Your task to perform on an android device: View the shopping cart on newegg. Add corsair k70 to the cart on newegg, then select checkout. Image 0: 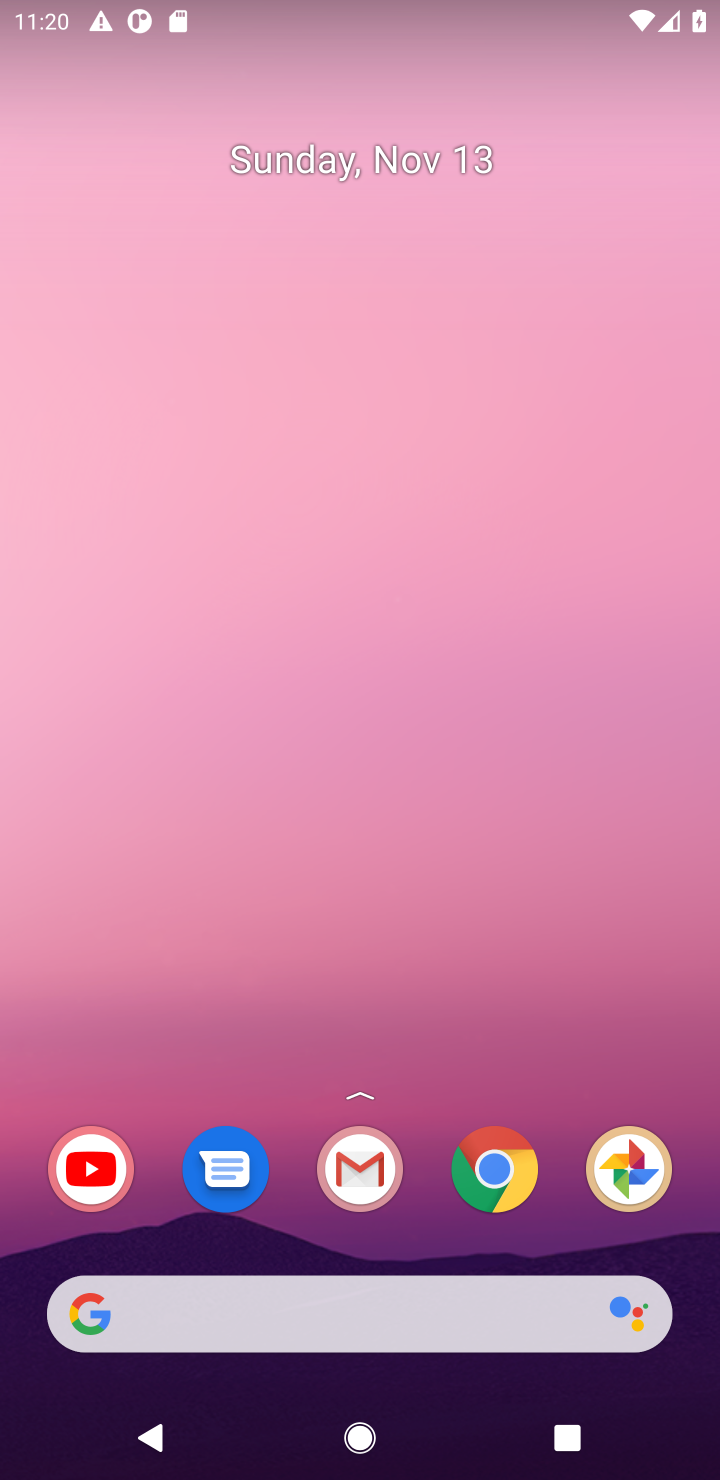
Step 0: drag from (423, 1248) to (305, 146)
Your task to perform on an android device: View the shopping cart on newegg. Add corsair k70 to the cart on newegg, then select checkout. Image 1: 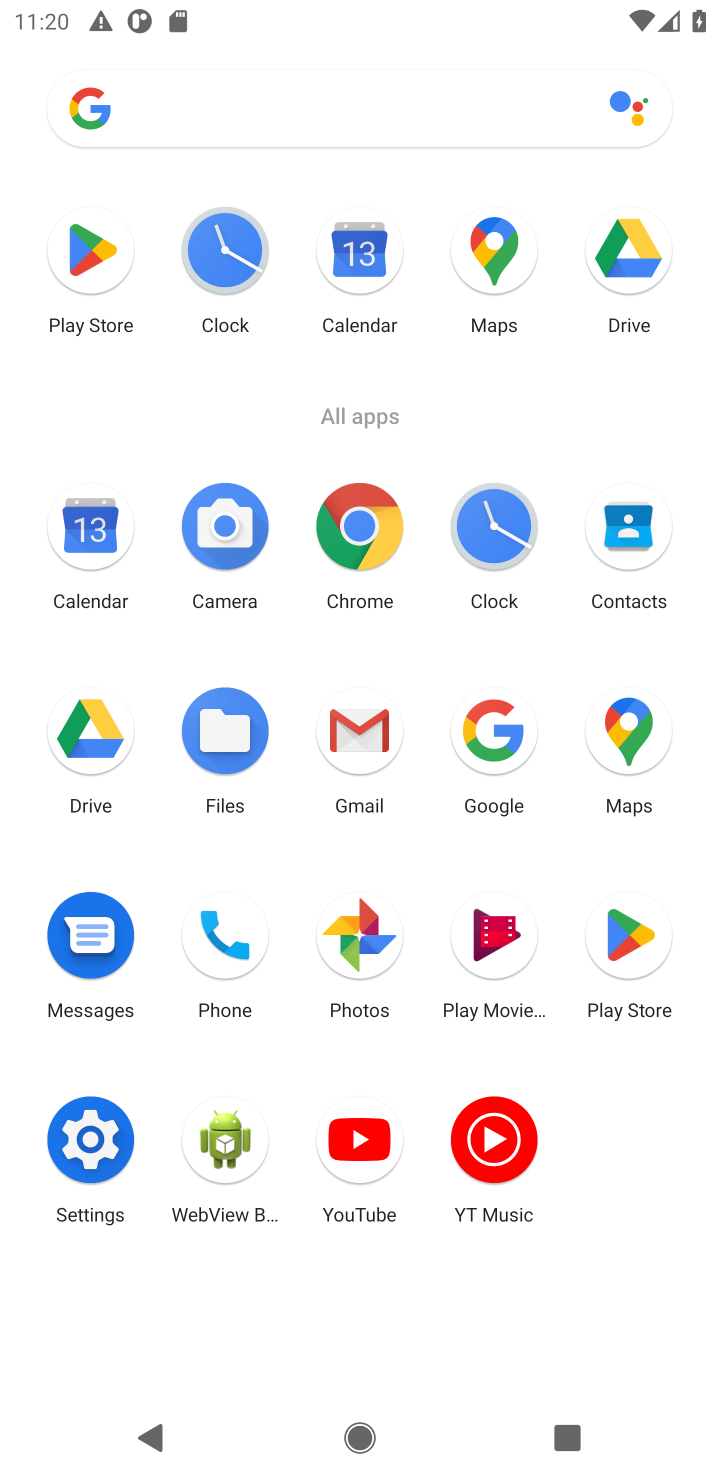
Step 1: click (367, 519)
Your task to perform on an android device: View the shopping cart on newegg. Add corsair k70 to the cart on newegg, then select checkout. Image 2: 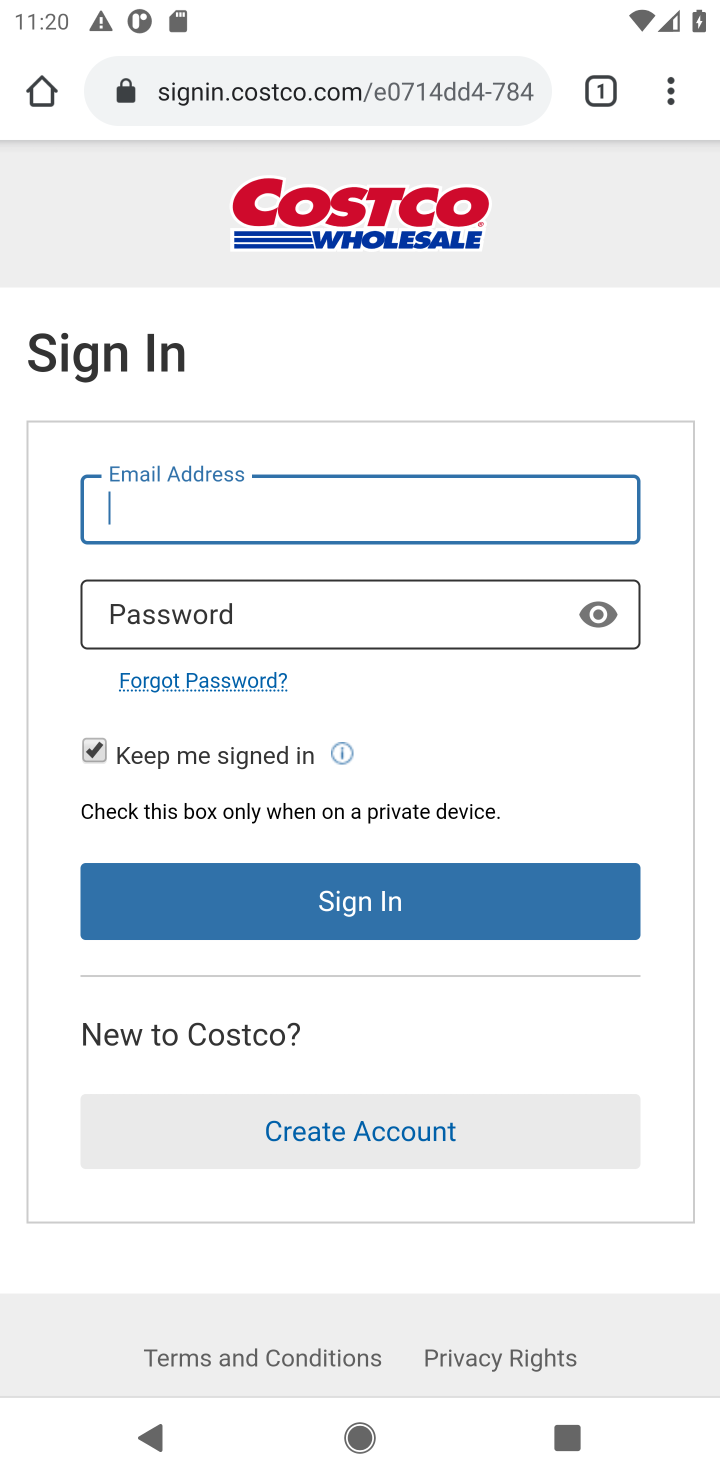
Step 2: click (386, 69)
Your task to perform on an android device: View the shopping cart on newegg. Add corsair k70 to the cart on newegg, then select checkout. Image 3: 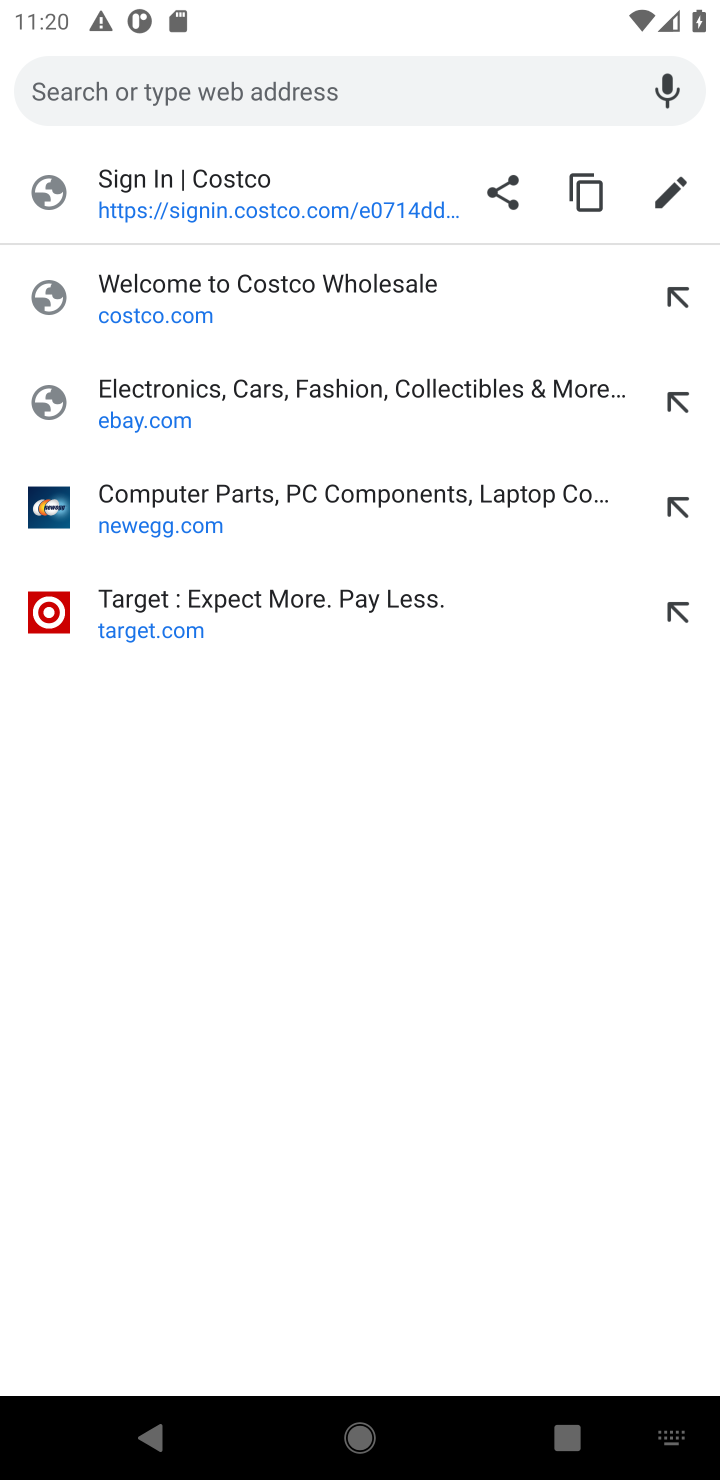
Step 3: type "newegg.com"
Your task to perform on an android device: View the shopping cart on newegg. Add corsair k70 to the cart on newegg, then select checkout. Image 4: 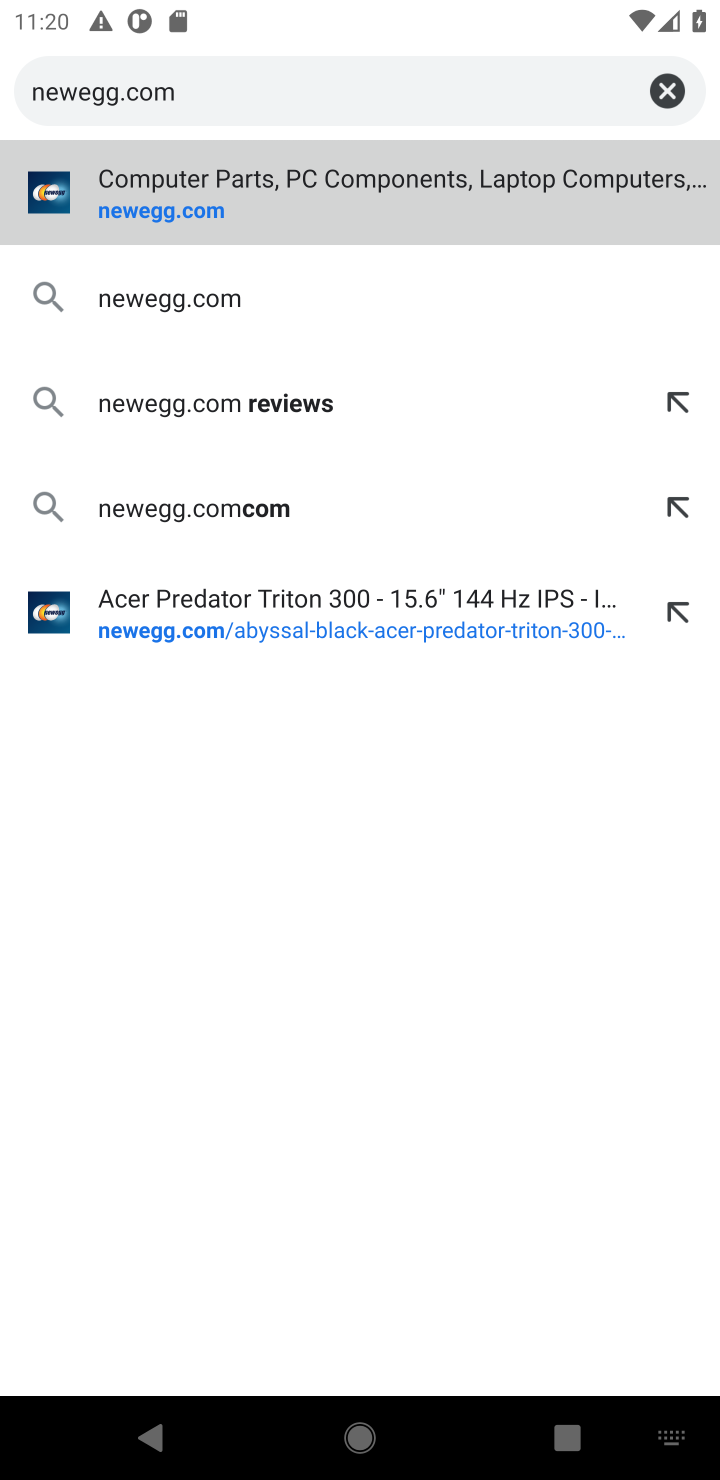
Step 4: press enter
Your task to perform on an android device: View the shopping cart on newegg. Add corsair k70 to the cart on newegg, then select checkout. Image 5: 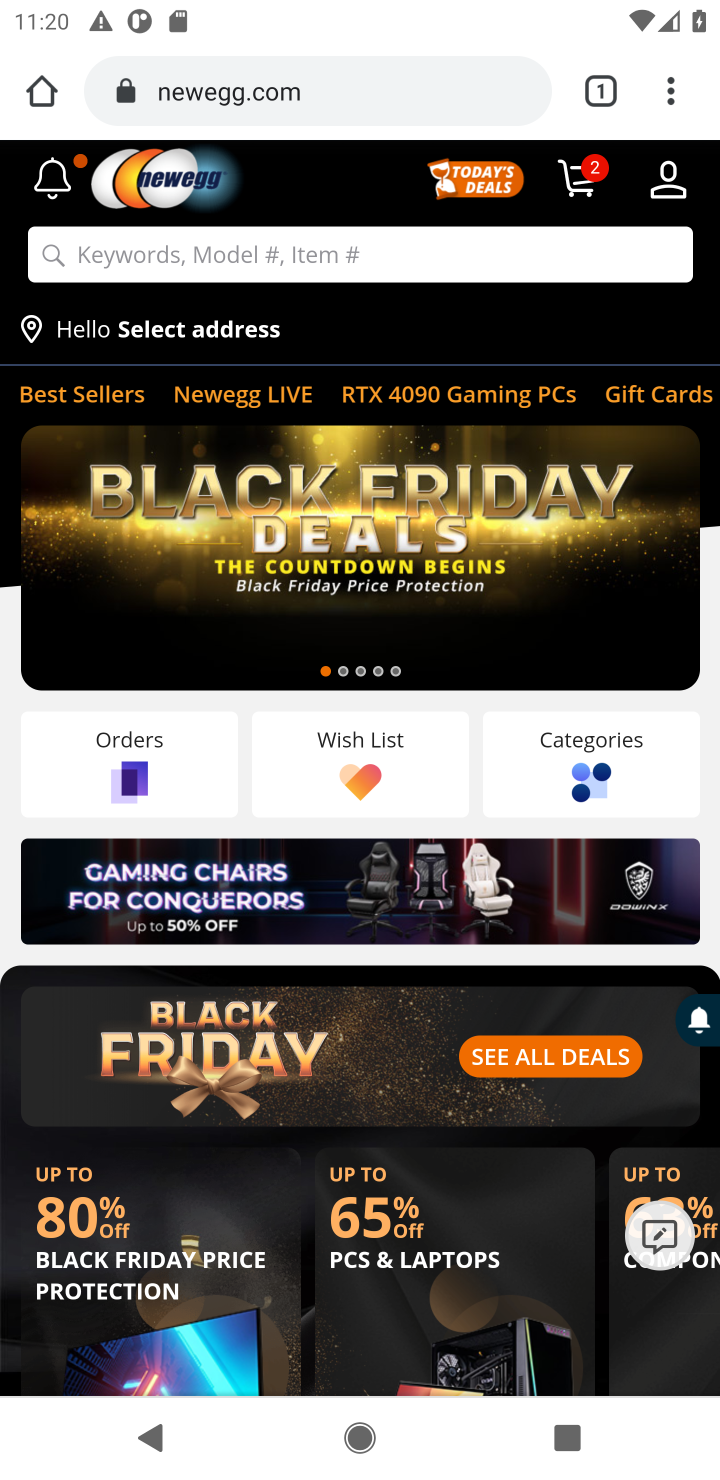
Step 5: click (572, 172)
Your task to perform on an android device: View the shopping cart on newegg. Add corsair k70 to the cart on newegg, then select checkout. Image 6: 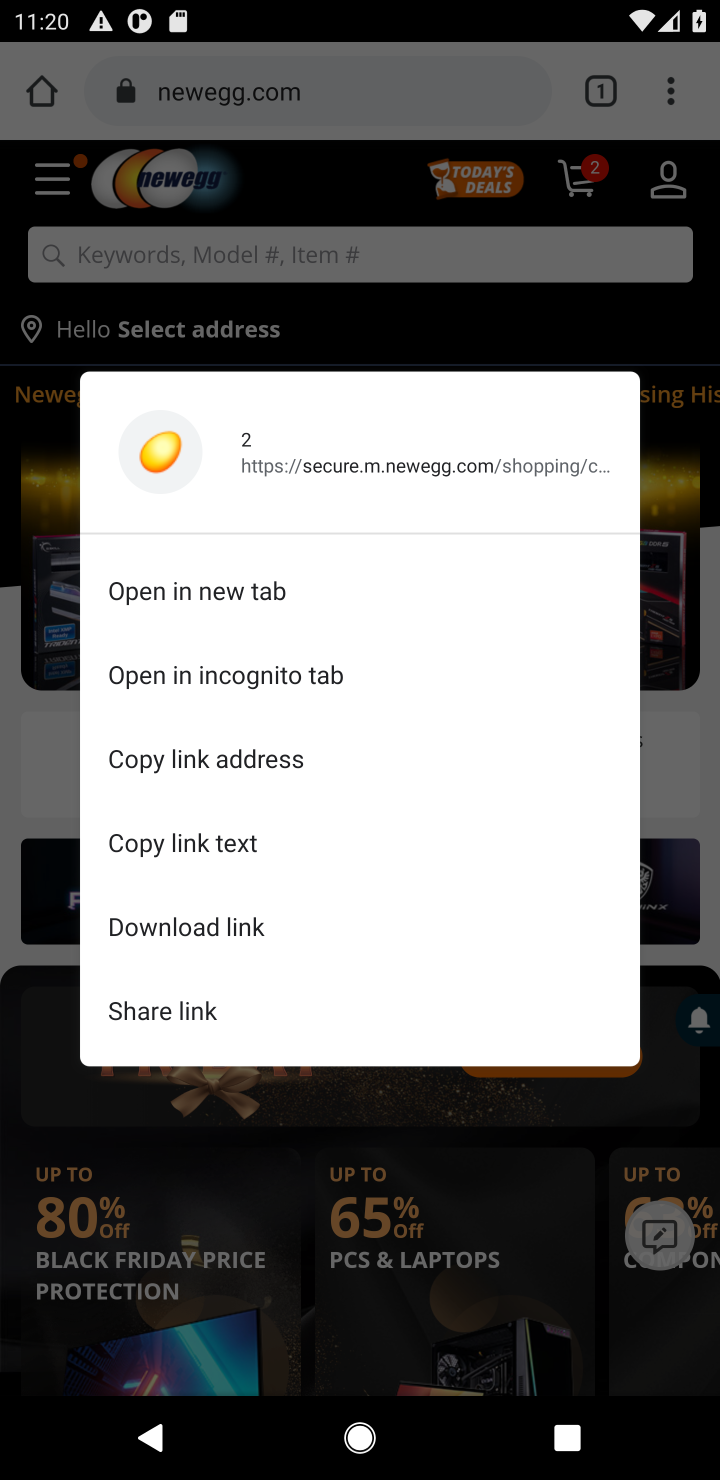
Step 6: click (595, 181)
Your task to perform on an android device: View the shopping cart on newegg. Add corsair k70 to the cart on newegg, then select checkout. Image 7: 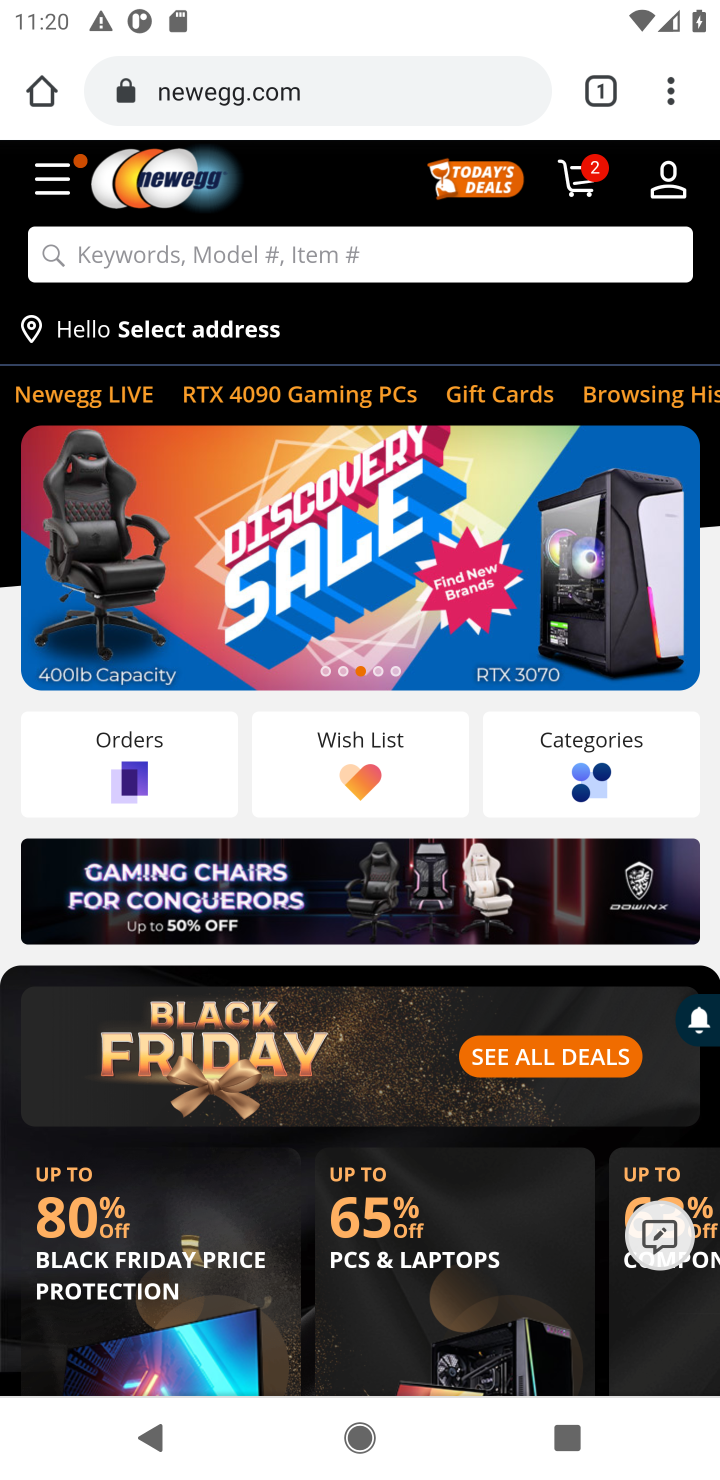
Step 7: click (595, 181)
Your task to perform on an android device: View the shopping cart on newegg. Add corsair k70 to the cart on newegg, then select checkout. Image 8: 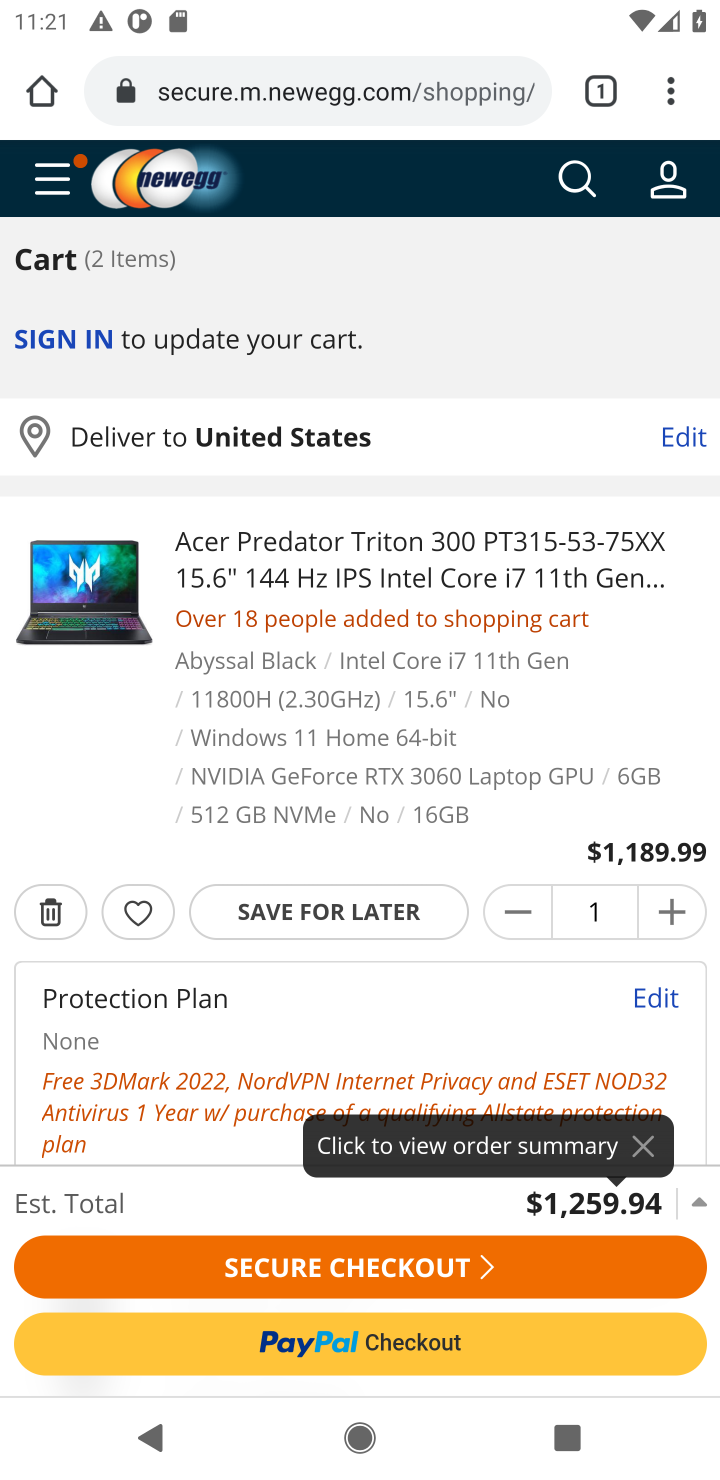
Step 8: click (591, 178)
Your task to perform on an android device: View the shopping cart on newegg. Add corsair k70 to the cart on newegg, then select checkout. Image 9: 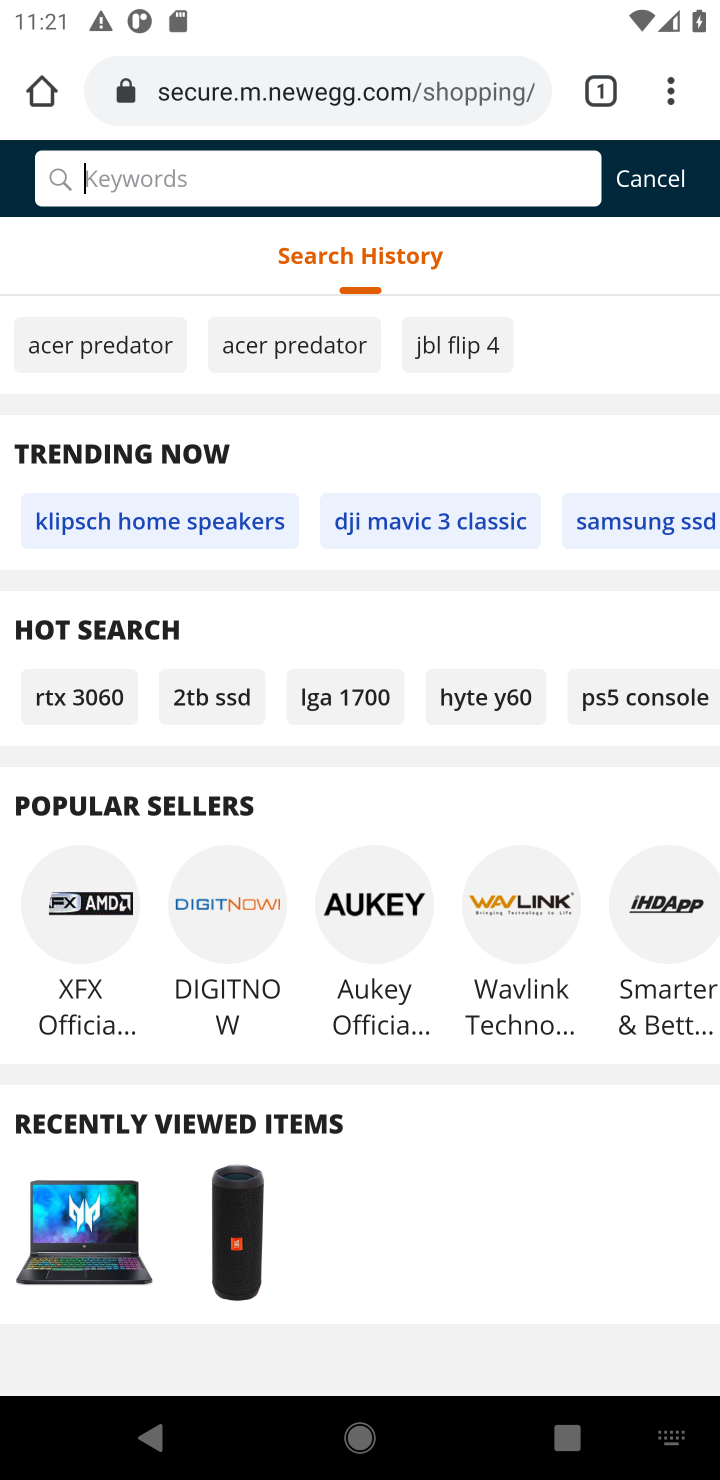
Step 9: type "corsair k70"
Your task to perform on an android device: View the shopping cart on newegg. Add corsair k70 to the cart on newegg, then select checkout. Image 10: 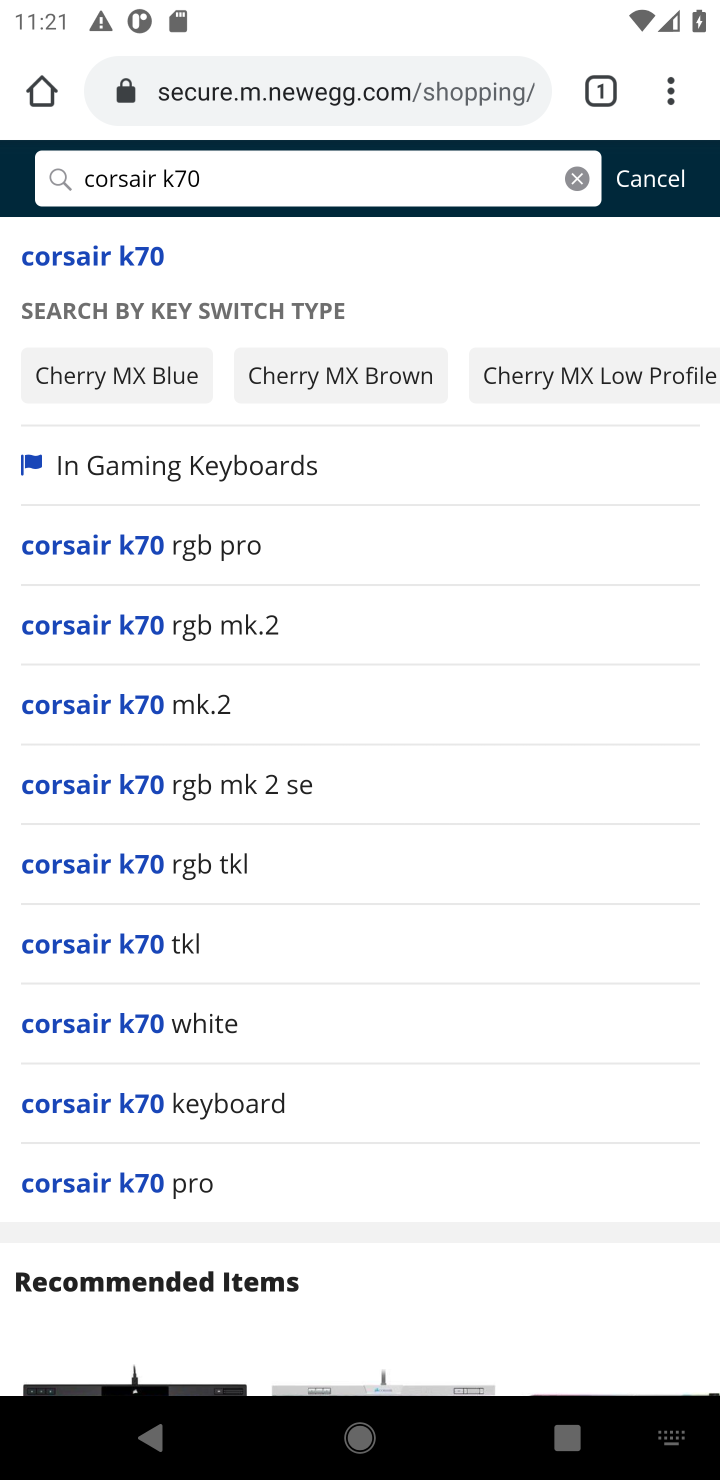
Step 10: press enter
Your task to perform on an android device: View the shopping cart on newegg. Add corsair k70 to the cart on newegg, then select checkout. Image 11: 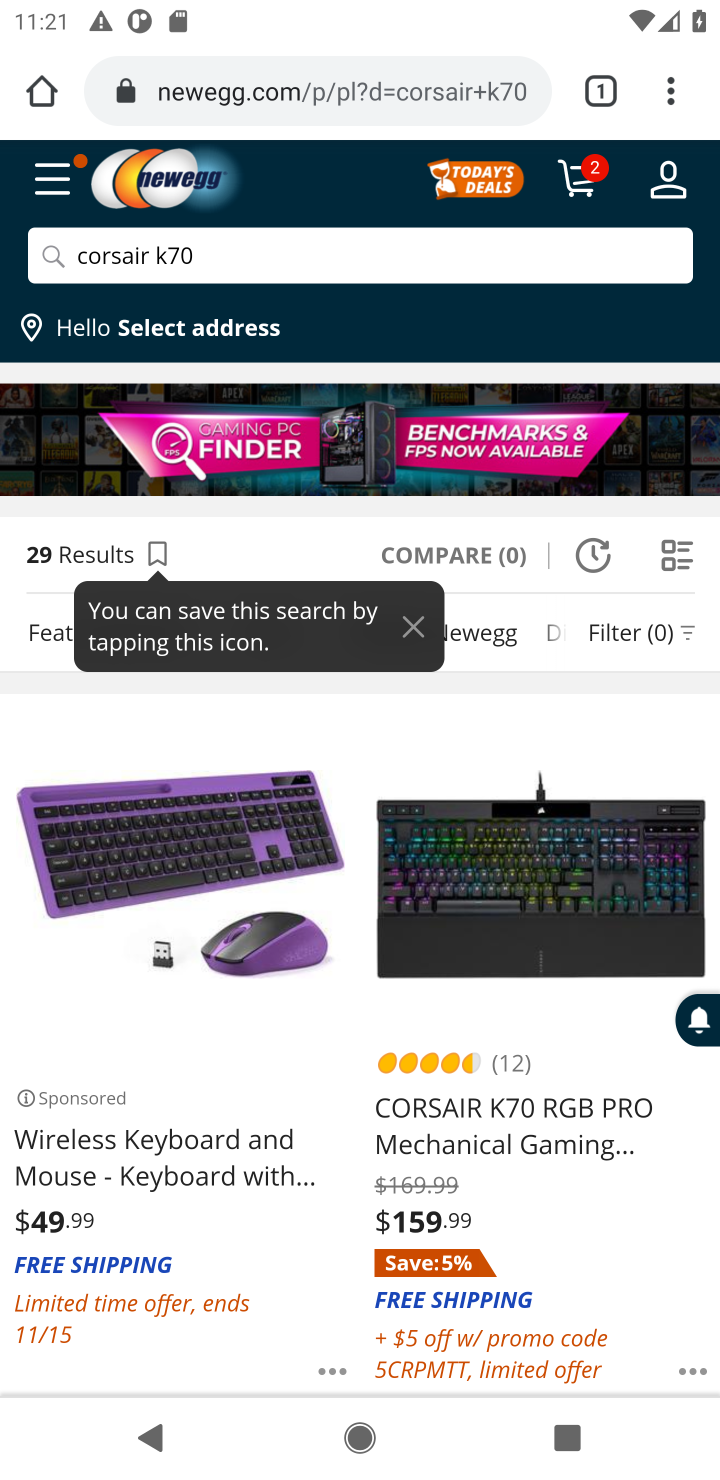
Step 11: drag from (523, 1080) to (554, 501)
Your task to perform on an android device: View the shopping cart on newegg. Add corsair k70 to the cart on newegg, then select checkout. Image 12: 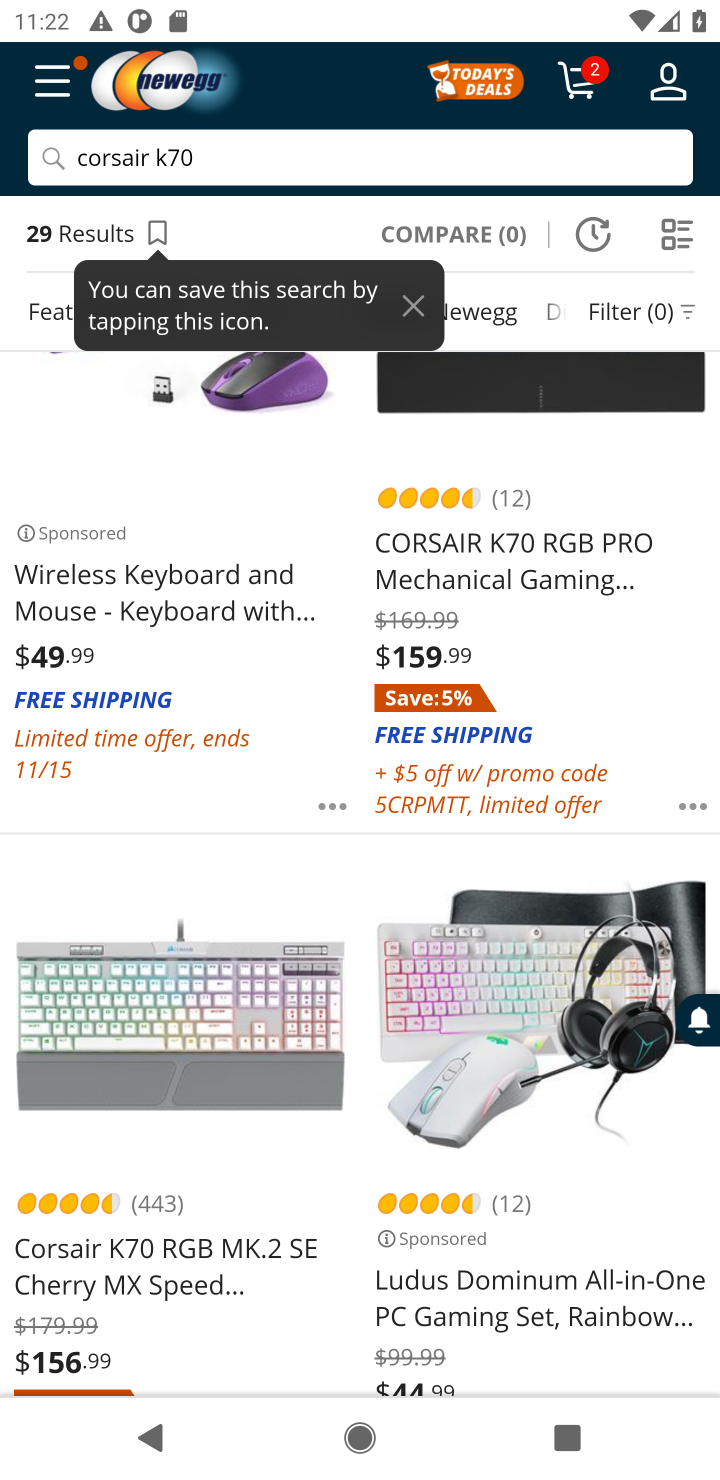
Step 12: click (549, 558)
Your task to perform on an android device: View the shopping cart on newegg. Add corsair k70 to the cart on newegg, then select checkout. Image 13: 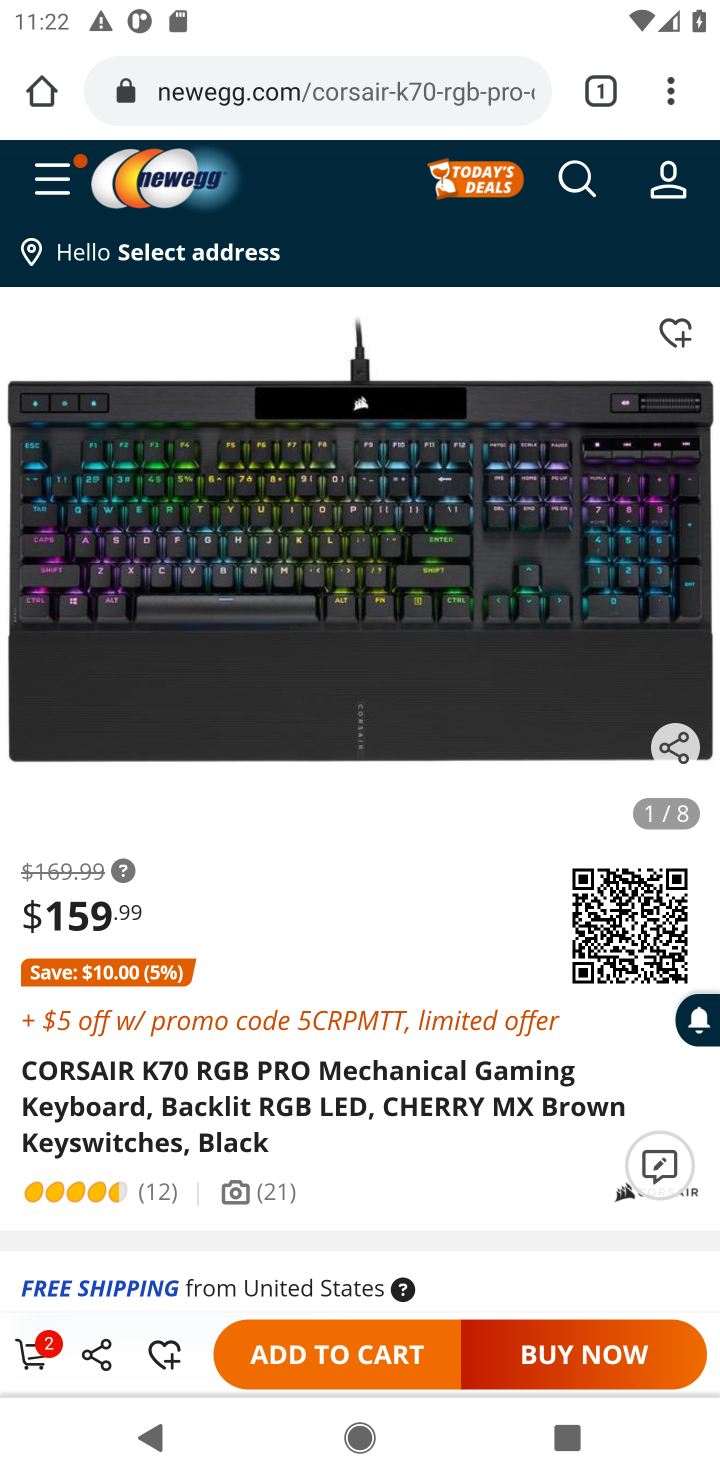
Step 13: drag from (474, 1181) to (432, 571)
Your task to perform on an android device: View the shopping cart on newegg. Add corsair k70 to the cart on newegg, then select checkout. Image 14: 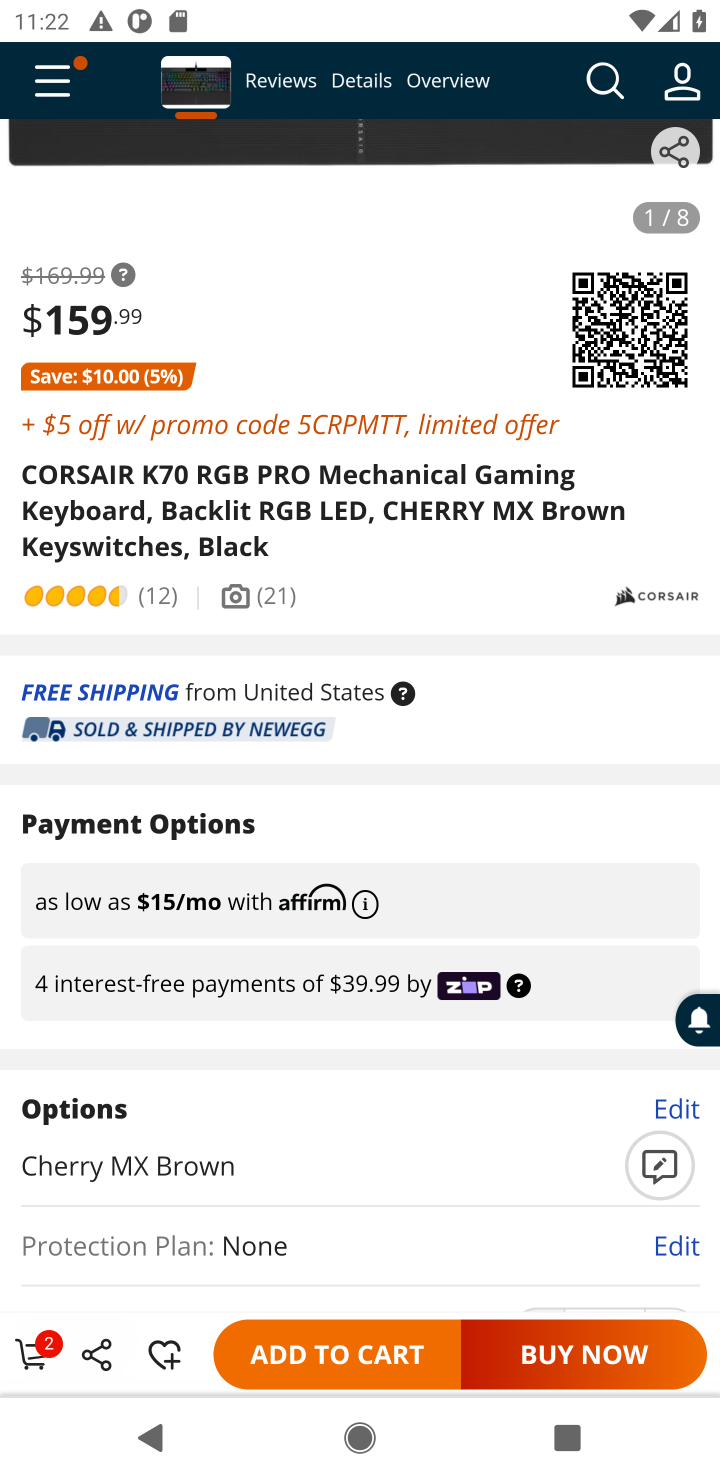
Step 14: click (383, 1371)
Your task to perform on an android device: View the shopping cart on newegg. Add corsair k70 to the cart on newegg, then select checkout. Image 15: 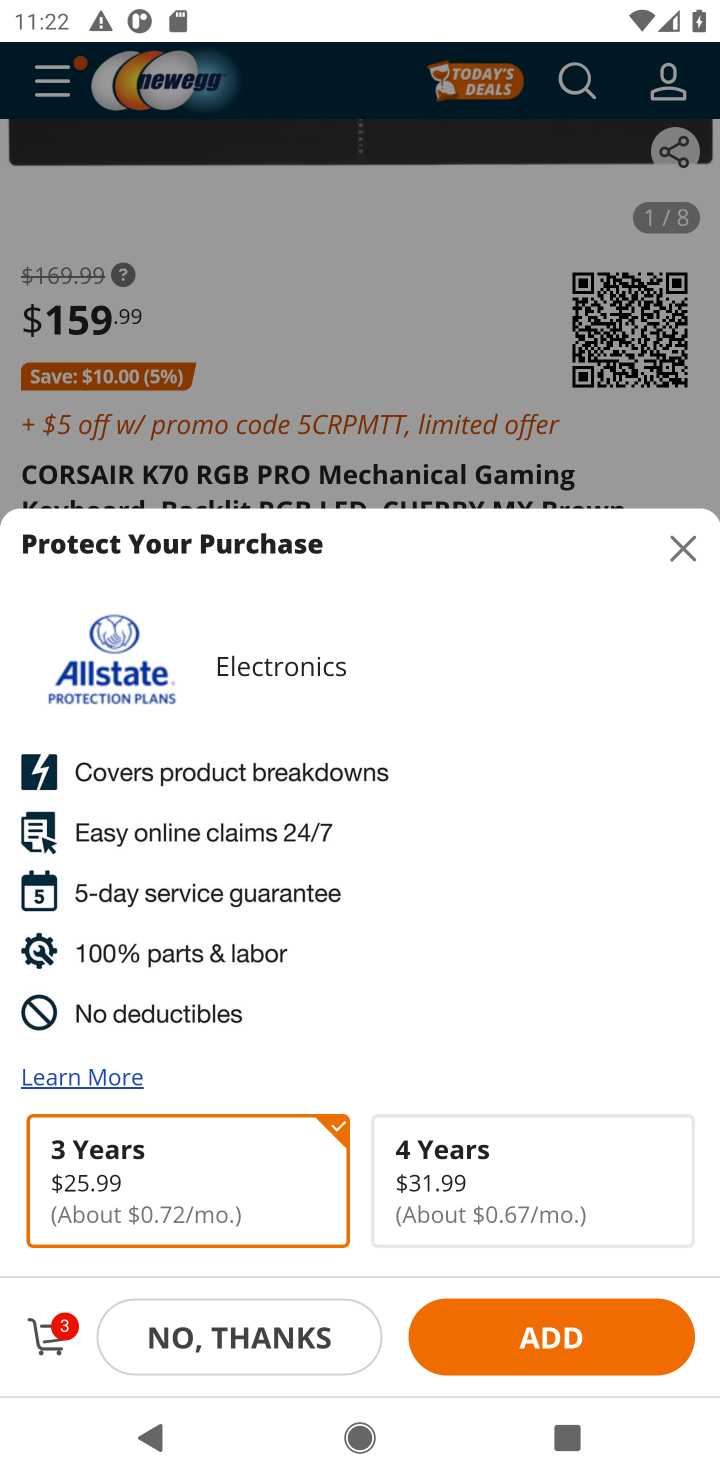
Step 15: click (40, 1319)
Your task to perform on an android device: View the shopping cart on newegg. Add corsair k70 to the cart on newegg, then select checkout. Image 16: 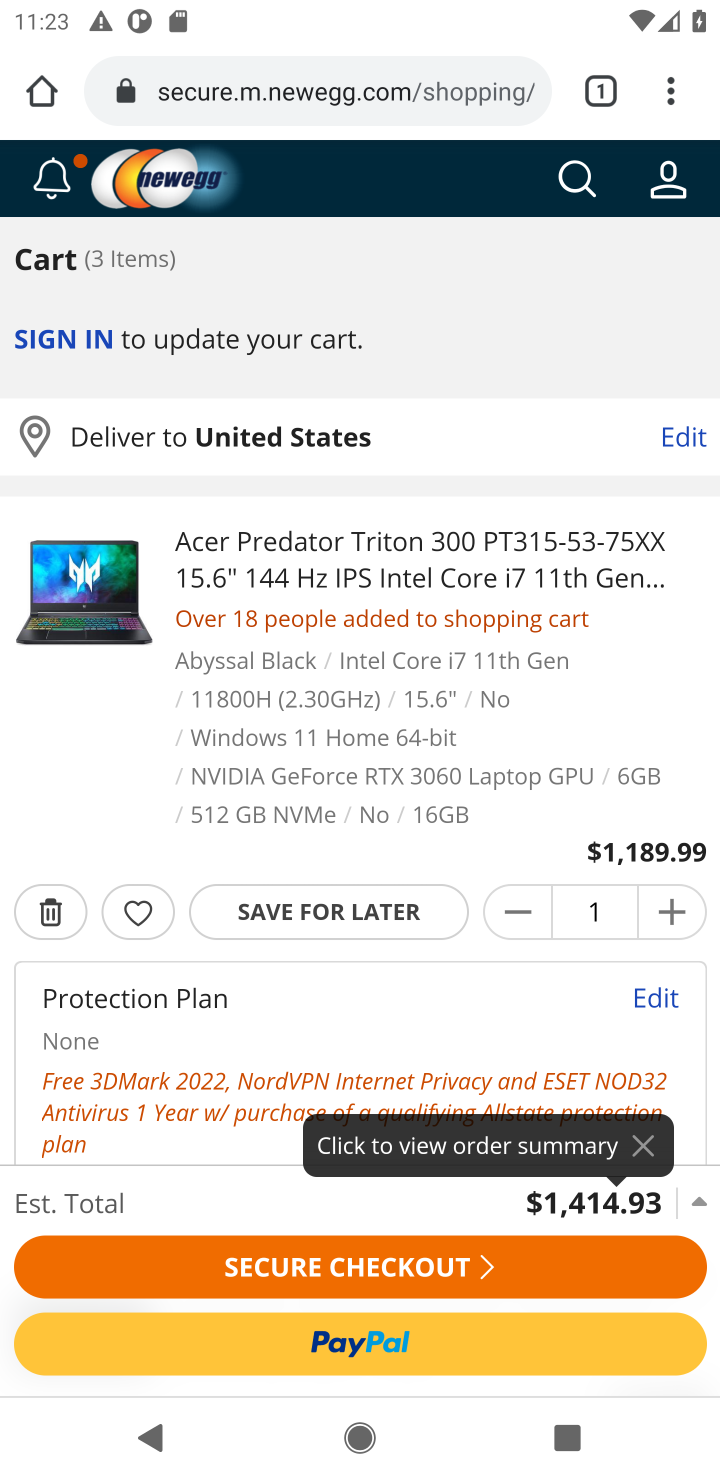
Step 16: click (350, 1254)
Your task to perform on an android device: View the shopping cart on newegg. Add corsair k70 to the cart on newegg, then select checkout. Image 17: 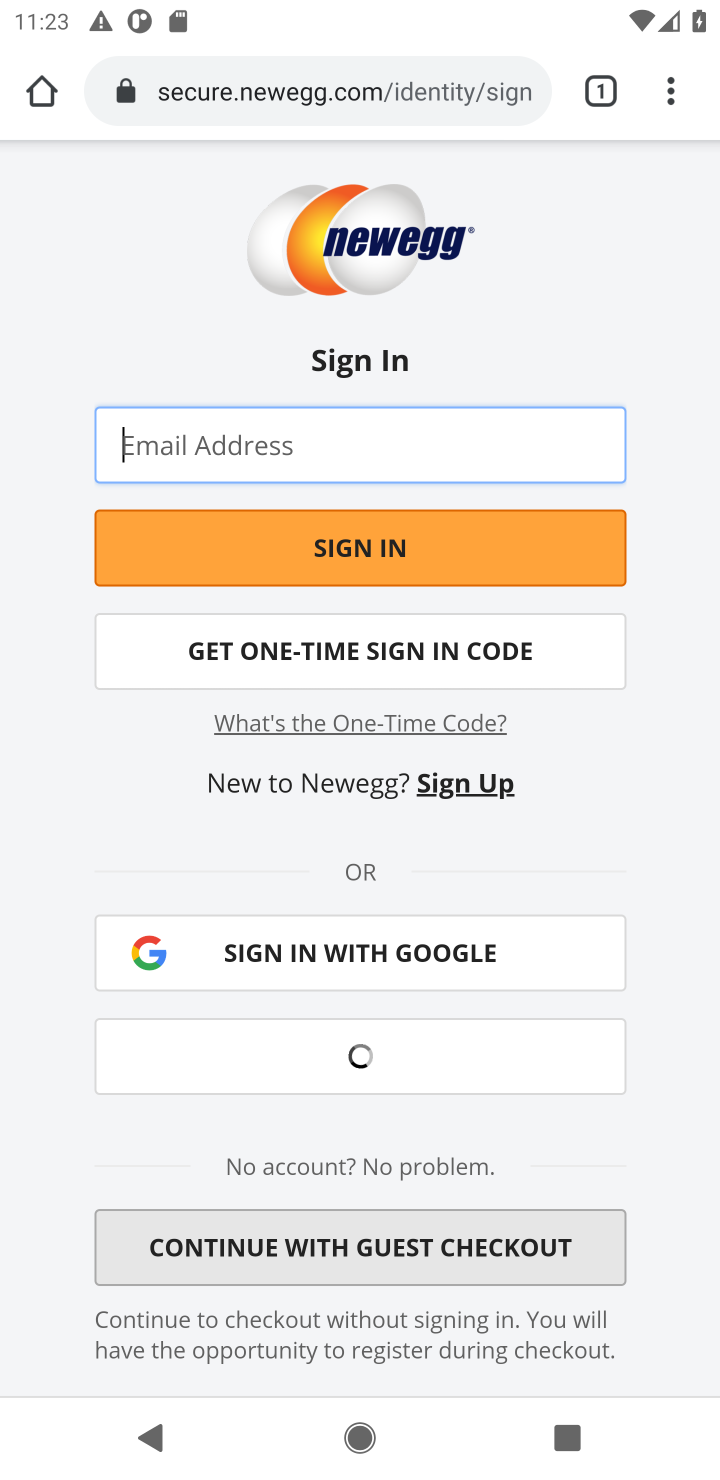
Step 17: task complete